Your task to perform on an android device: Open the calendar app, open the side menu, and click the "Day" option Image 0: 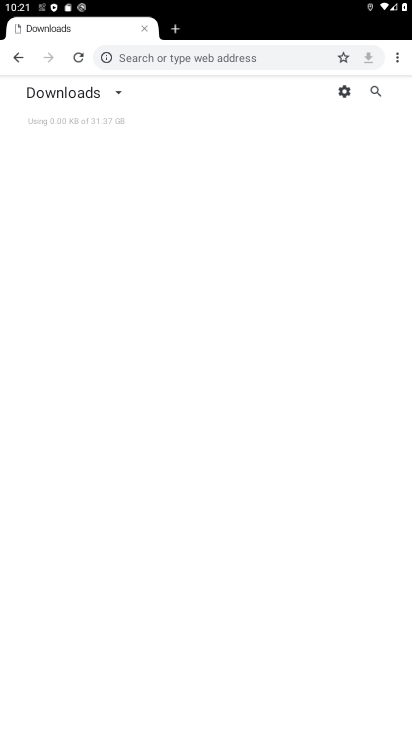
Step 0: press home button
Your task to perform on an android device: Open the calendar app, open the side menu, and click the "Day" option Image 1: 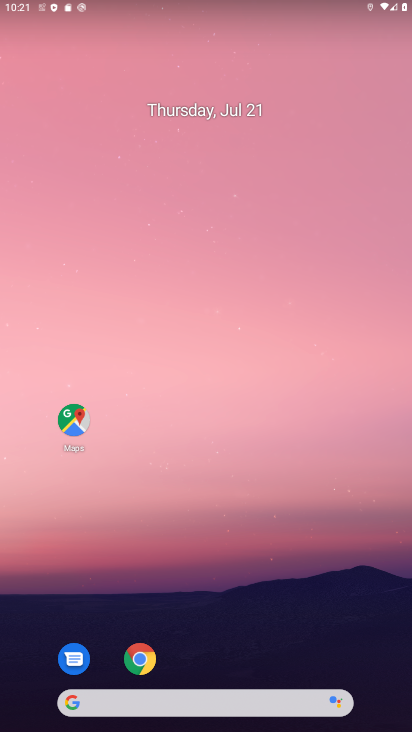
Step 1: drag from (203, 671) to (158, 170)
Your task to perform on an android device: Open the calendar app, open the side menu, and click the "Day" option Image 2: 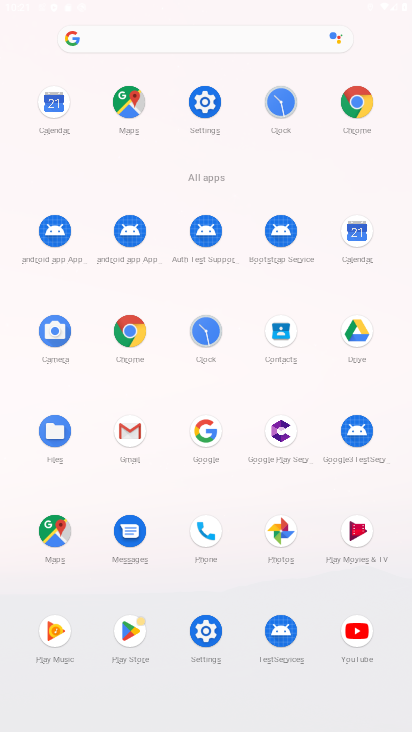
Step 2: click (365, 224)
Your task to perform on an android device: Open the calendar app, open the side menu, and click the "Day" option Image 3: 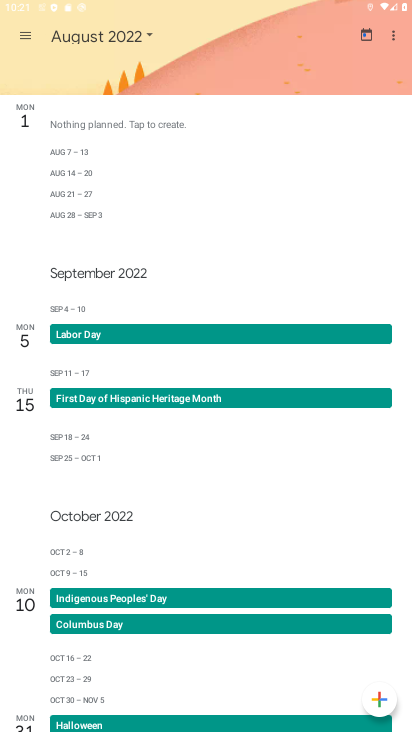
Step 3: click (21, 44)
Your task to perform on an android device: Open the calendar app, open the side menu, and click the "Day" option Image 4: 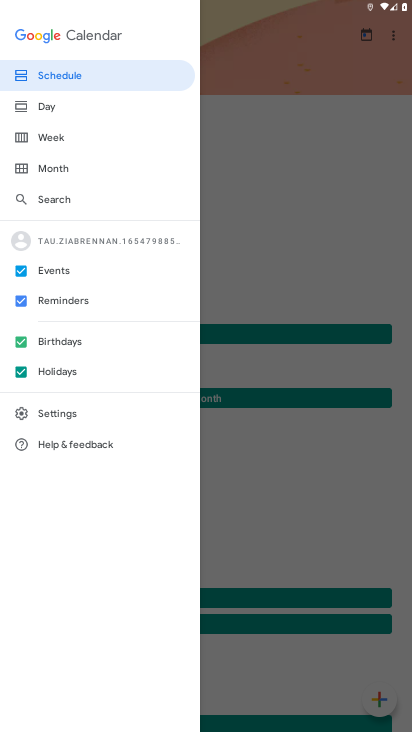
Step 4: click (36, 99)
Your task to perform on an android device: Open the calendar app, open the side menu, and click the "Day" option Image 5: 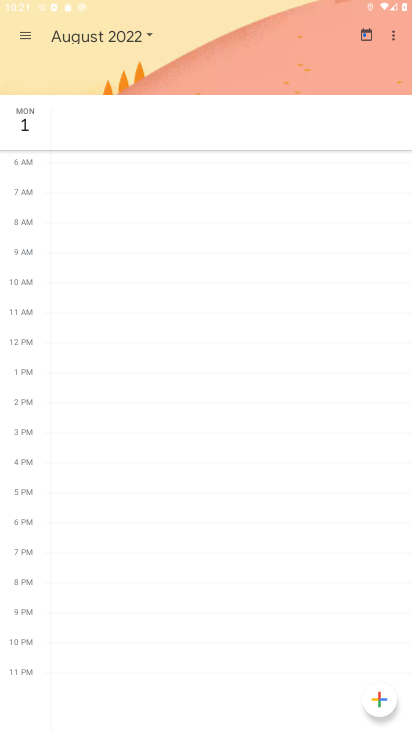
Step 5: task complete